Your task to perform on an android device: Open settings Image 0: 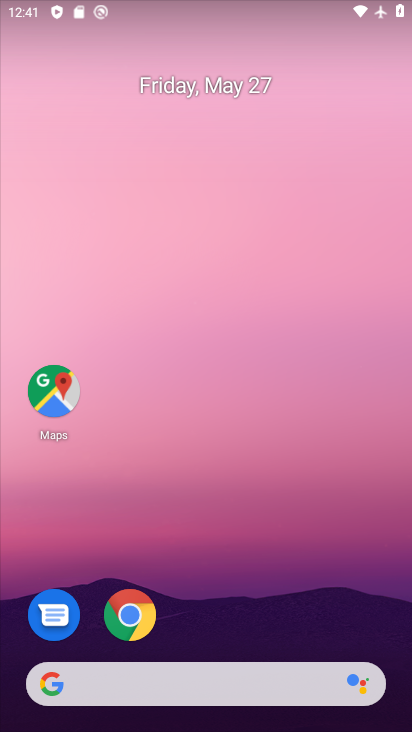
Step 0: press home button
Your task to perform on an android device: Open settings Image 1: 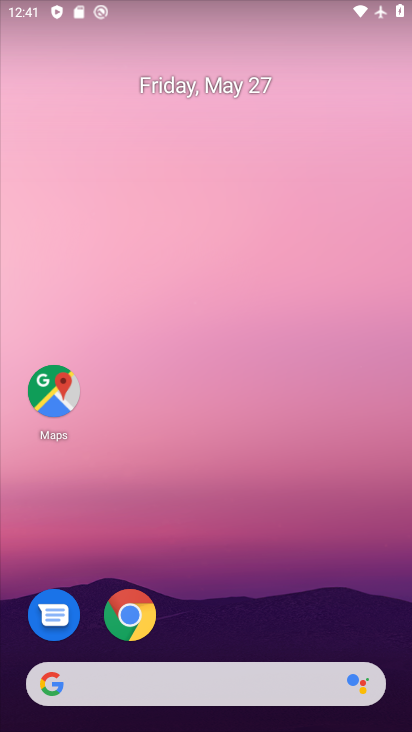
Step 1: drag from (318, 604) to (273, 255)
Your task to perform on an android device: Open settings Image 2: 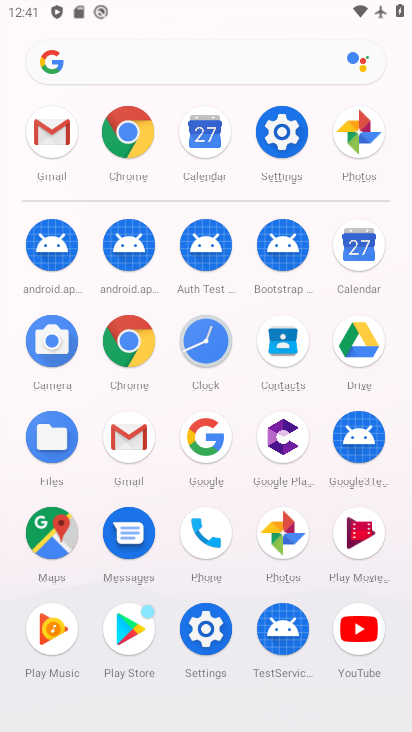
Step 2: click (287, 137)
Your task to perform on an android device: Open settings Image 3: 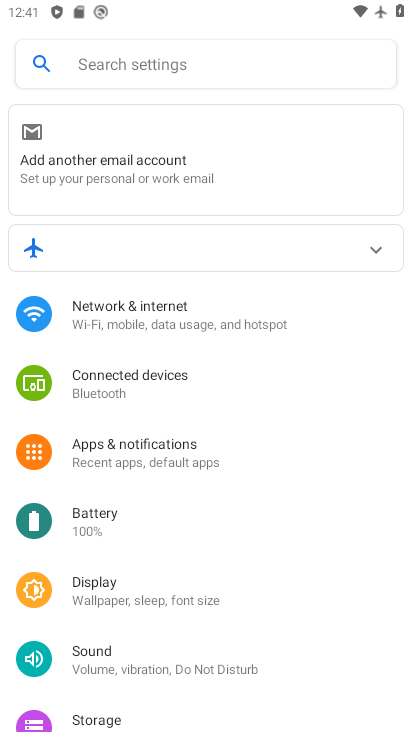
Step 3: task complete